Your task to perform on an android device: turn off notifications settings in the gmail app Image 0: 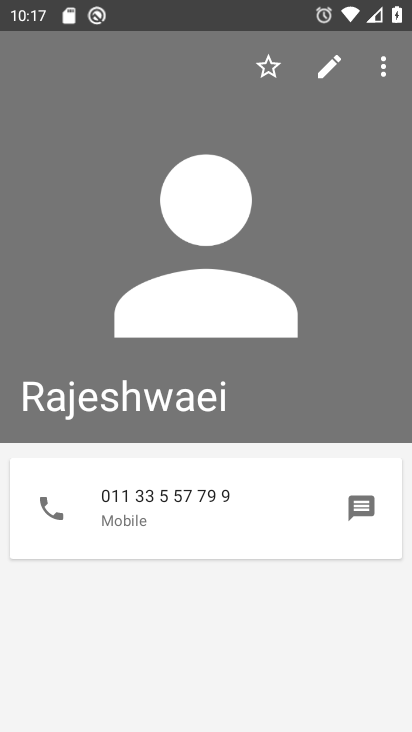
Step 0: press home button
Your task to perform on an android device: turn off notifications settings in the gmail app Image 1: 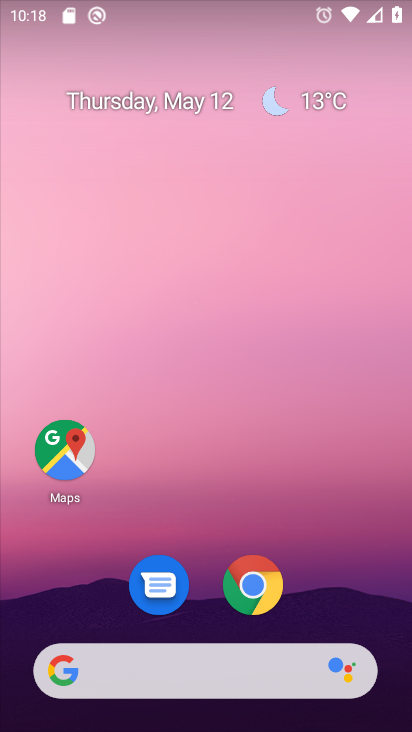
Step 1: drag from (180, 489) to (260, 57)
Your task to perform on an android device: turn off notifications settings in the gmail app Image 2: 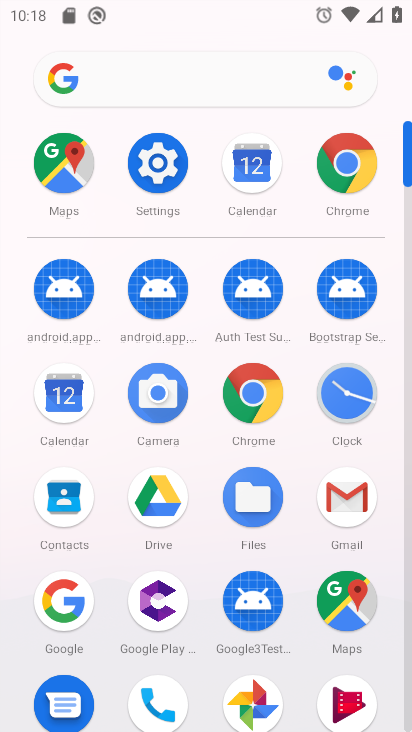
Step 2: click (348, 504)
Your task to perform on an android device: turn off notifications settings in the gmail app Image 3: 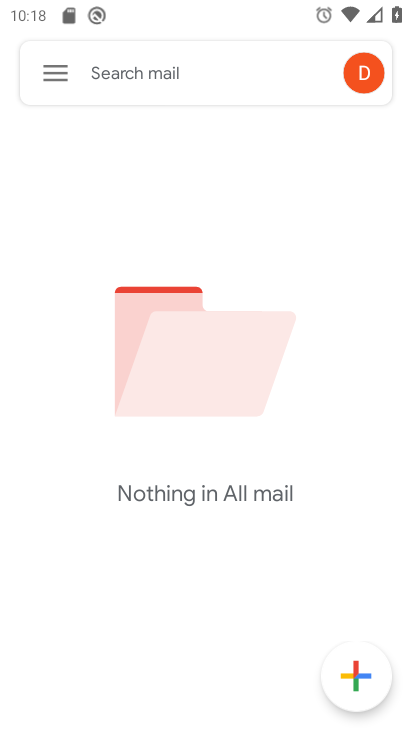
Step 3: click (60, 75)
Your task to perform on an android device: turn off notifications settings in the gmail app Image 4: 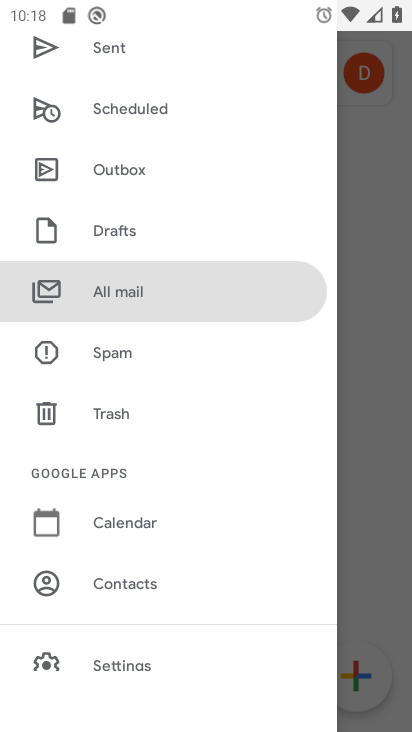
Step 4: click (127, 658)
Your task to perform on an android device: turn off notifications settings in the gmail app Image 5: 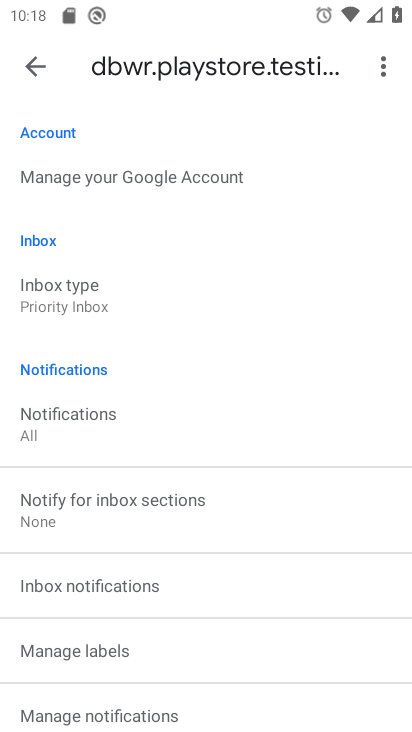
Step 5: click (148, 577)
Your task to perform on an android device: turn off notifications settings in the gmail app Image 6: 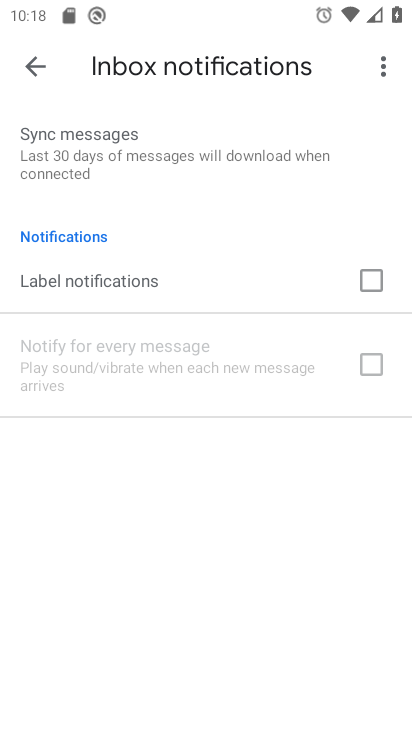
Step 6: click (40, 64)
Your task to perform on an android device: turn off notifications settings in the gmail app Image 7: 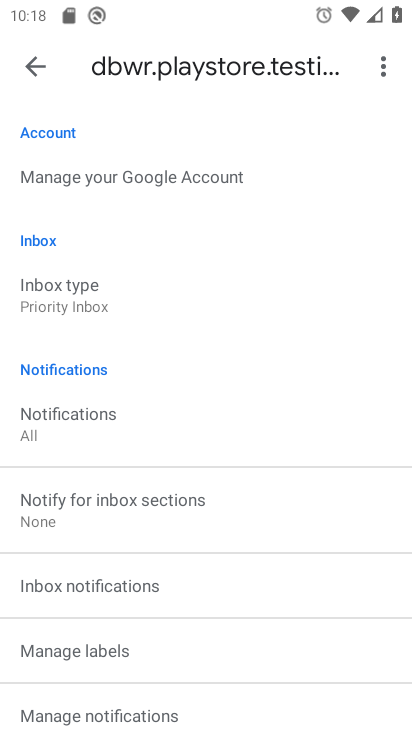
Step 7: click (187, 714)
Your task to perform on an android device: turn off notifications settings in the gmail app Image 8: 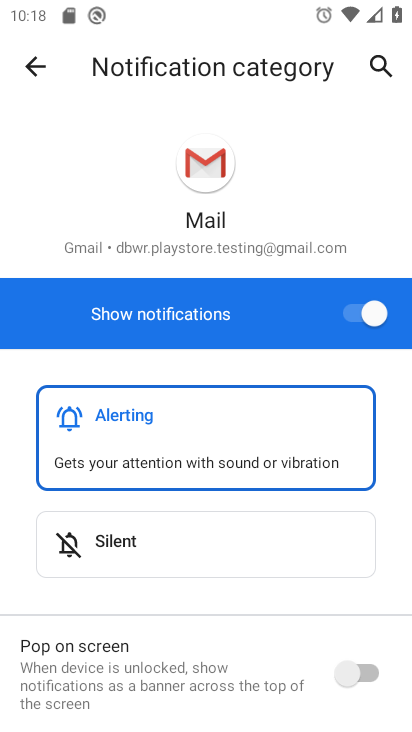
Step 8: click (359, 316)
Your task to perform on an android device: turn off notifications settings in the gmail app Image 9: 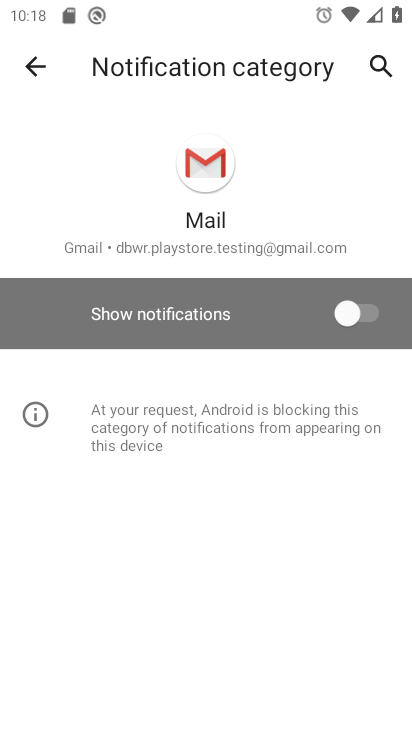
Step 9: task complete